Your task to perform on an android device: Check the weather Image 0: 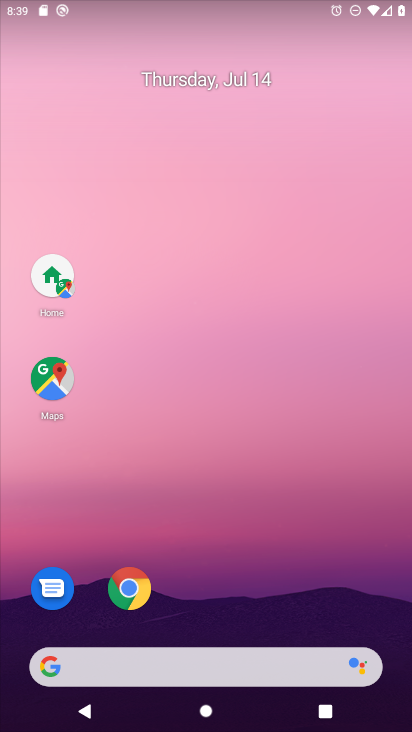
Step 0: drag from (25, 711) to (294, 47)
Your task to perform on an android device: Check the weather Image 1: 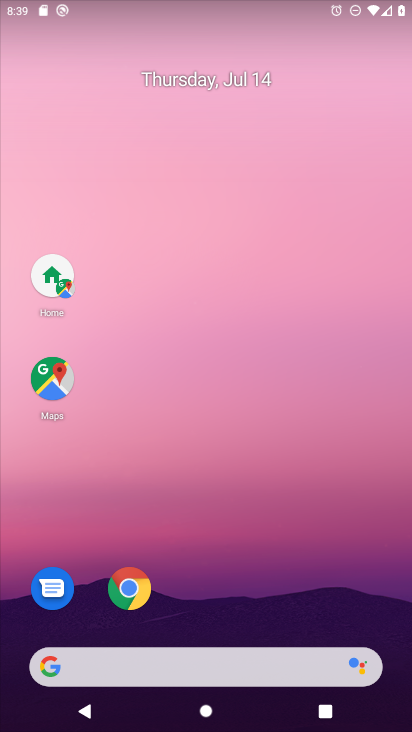
Step 1: drag from (54, 713) to (189, 720)
Your task to perform on an android device: Check the weather Image 2: 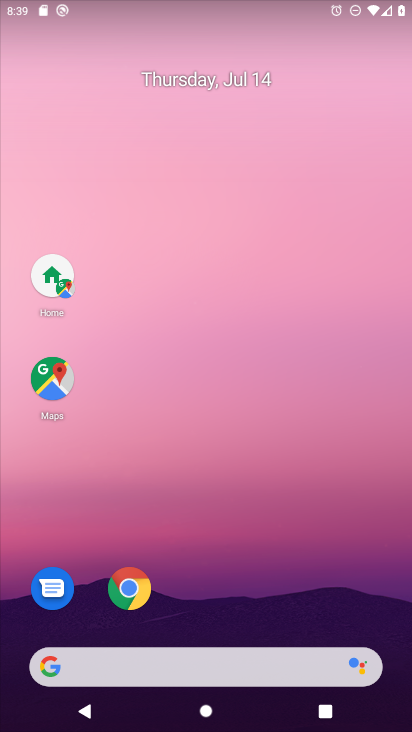
Step 2: click (125, 653)
Your task to perform on an android device: Check the weather Image 3: 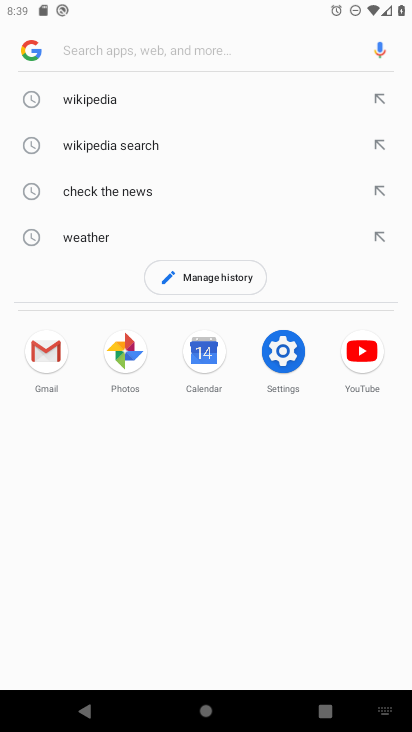
Step 3: click (66, 240)
Your task to perform on an android device: Check the weather Image 4: 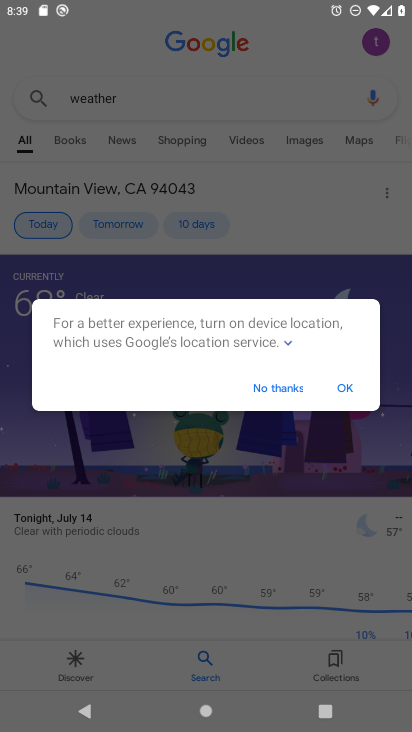
Step 4: click (348, 385)
Your task to perform on an android device: Check the weather Image 5: 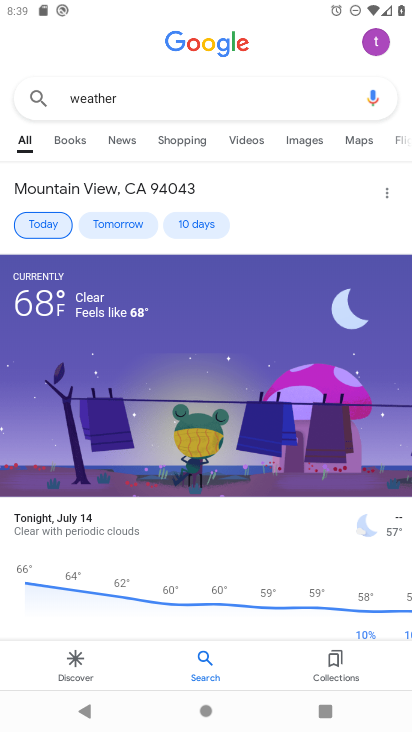
Step 5: task complete